Your task to perform on an android device: Open Chrome and go to the settings page Image 0: 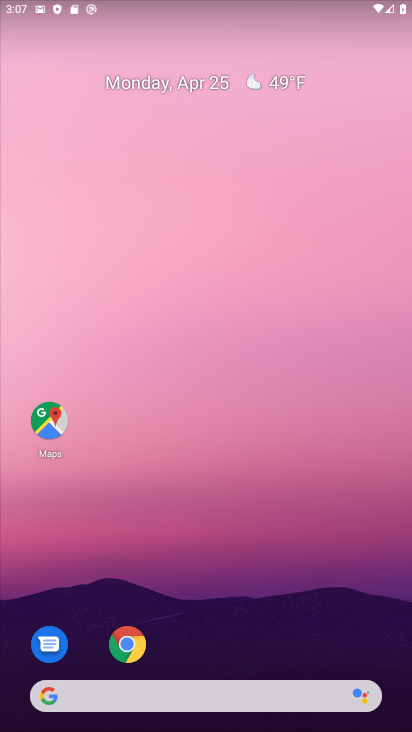
Step 0: drag from (286, 659) to (148, 121)
Your task to perform on an android device: Open Chrome and go to the settings page Image 1: 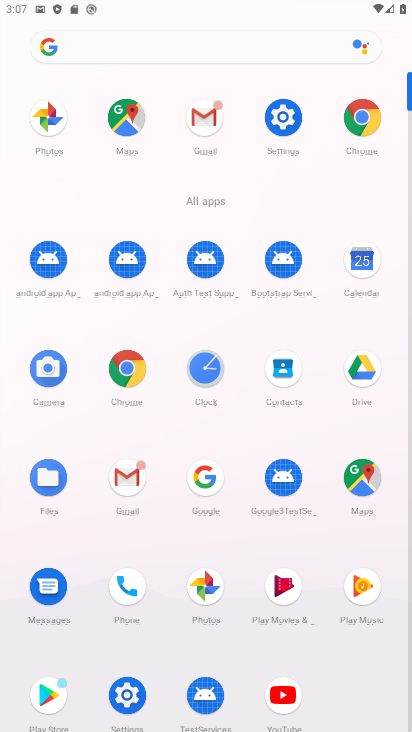
Step 1: click (365, 126)
Your task to perform on an android device: Open Chrome and go to the settings page Image 2: 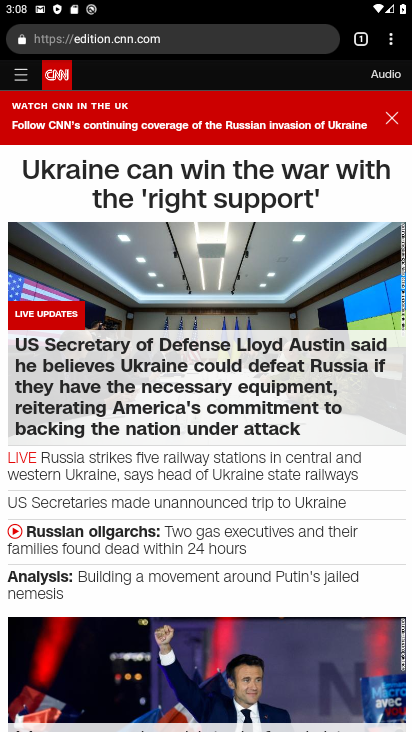
Step 2: click (393, 32)
Your task to perform on an android device: Open Chrome and go to the settings page Image 3: 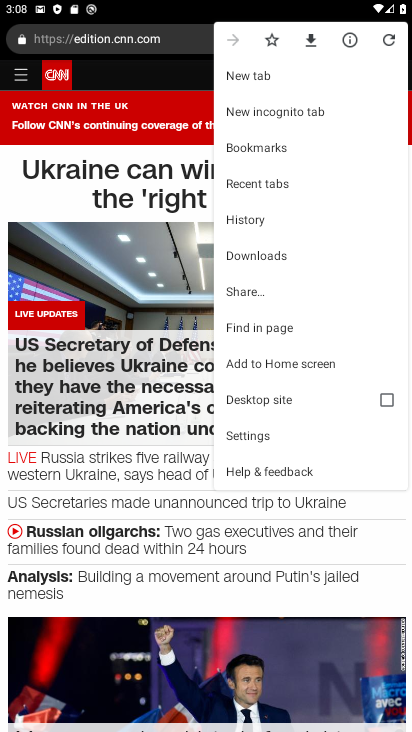
Step 3: click (262, 422)
Your task to perform on an android device: Open Chrome and go to the settings page Image 4: 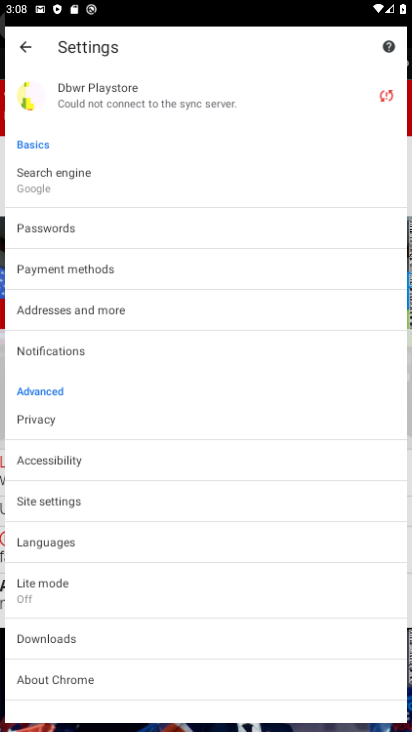
Step 4: task complete